Your task to perform on an android device: change the clock display to analog Image 0: 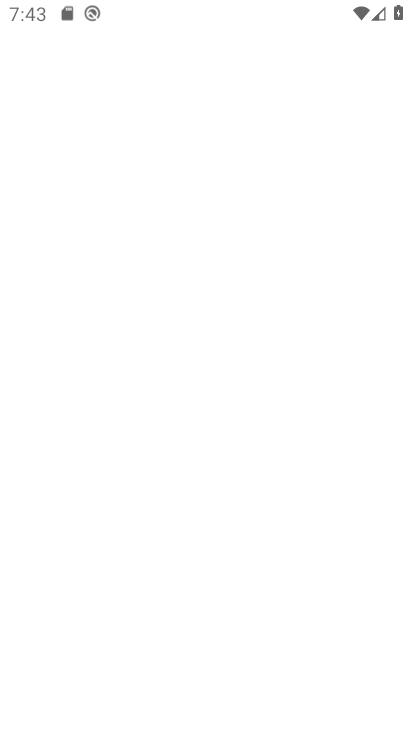
Step 0: press home button
Your task to perform on an android device: change the clock display to analog Image 1: 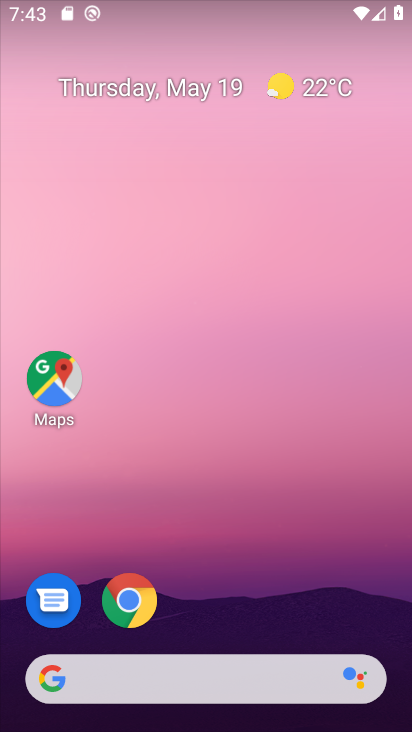
Step 1: drag from (235, 522) to (276, 101)
Your task to perform on an android device: change the clock display to analog Image 2: 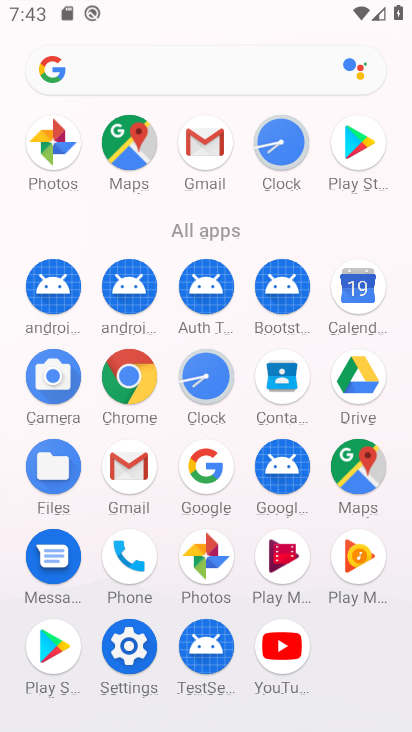
Step 2: click (204, 380)
Your task to perform on an android device: change the clock display to analog Image 3: 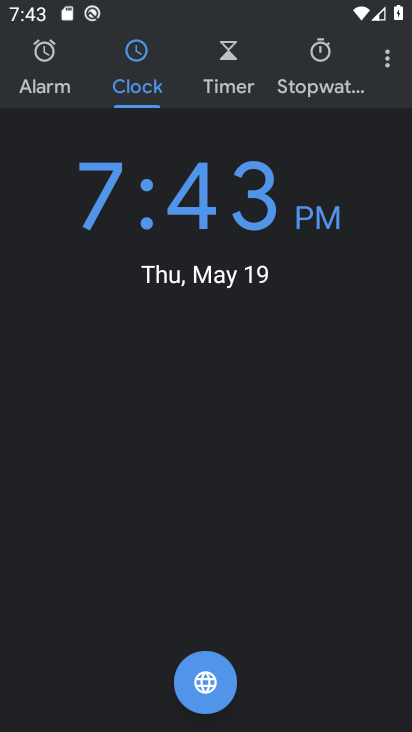
Step 3: click (379, 61)
Your task to perform on an android device: change the clock display to analog Image 4: 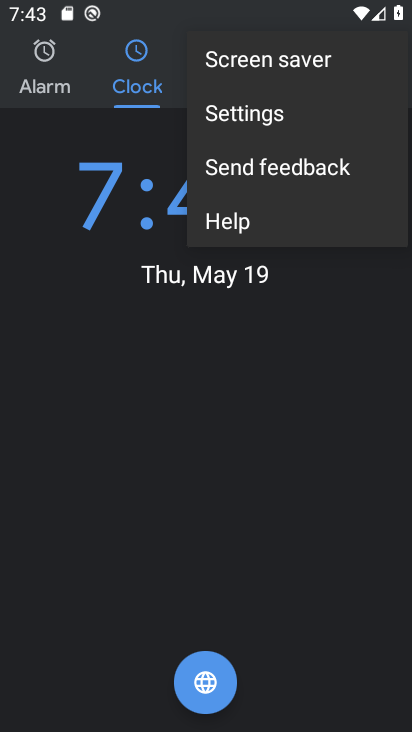
Step 4: click (289, 118)
Your task to perform on an android device: change the clock display to analog Image 5: 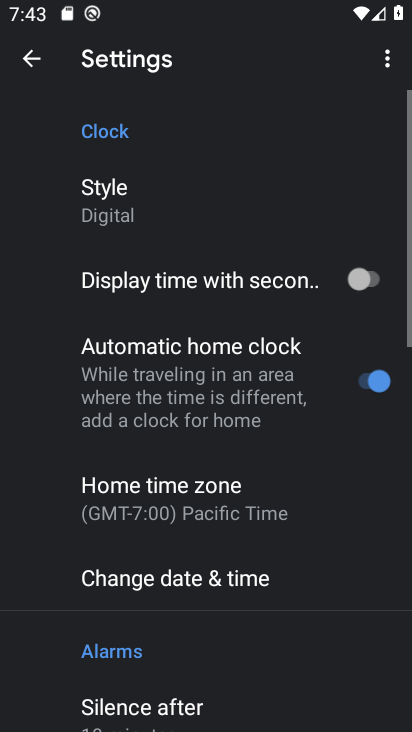
Step 5: click (116, 212)
Your task to perform on an android device: change the clock display to analog Image 6: 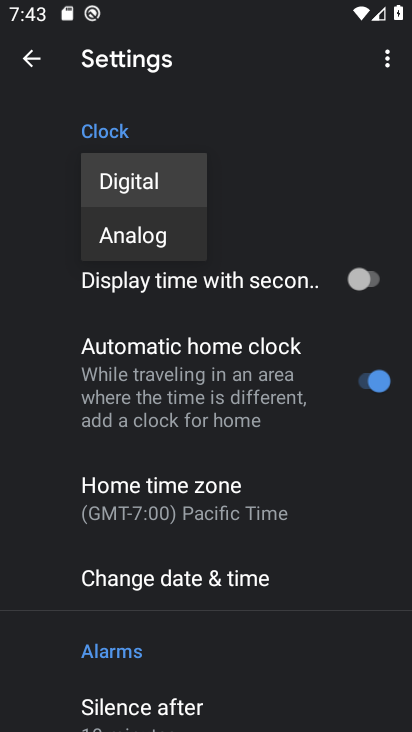
Step 6: click (127, 237)
Your task to perform on an android device: change the clock display to analog Image 7: 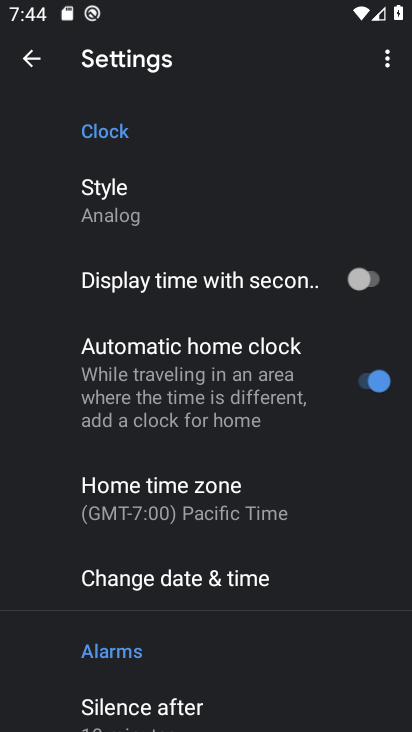
Step 7: task complete